Your task to perform on an android device: Open notification settings Image 0: 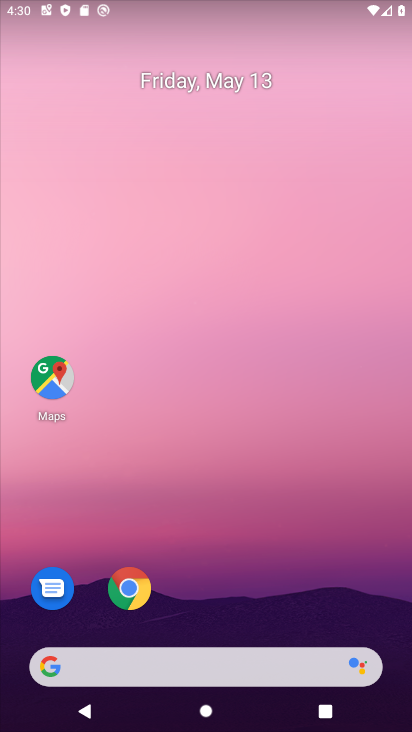
Step 0: drag from (258, 477) to (325, 180)
Your task to perform on an android device: Open notification settings Image 1: 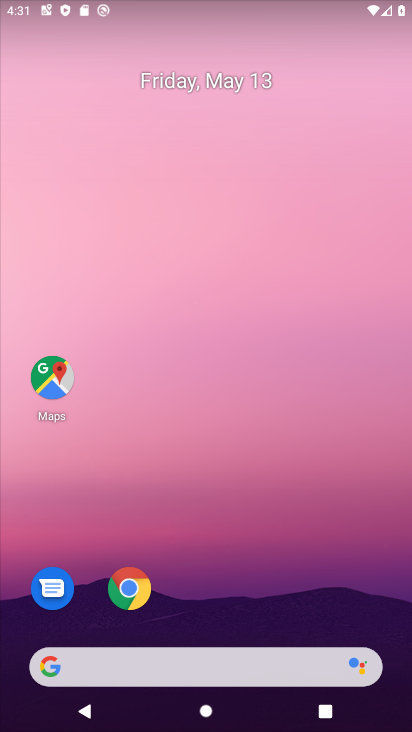
Step 1: click (261, 159)
Your task to perform on an android device: Open notification settings Image 2: 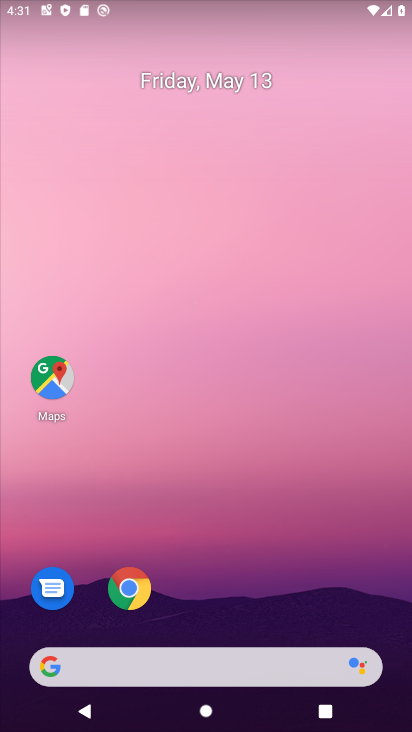
Step 2: drag from (246, 633) to (378, 102)
Your task to perform on an android device: Open notification settings Image 3: 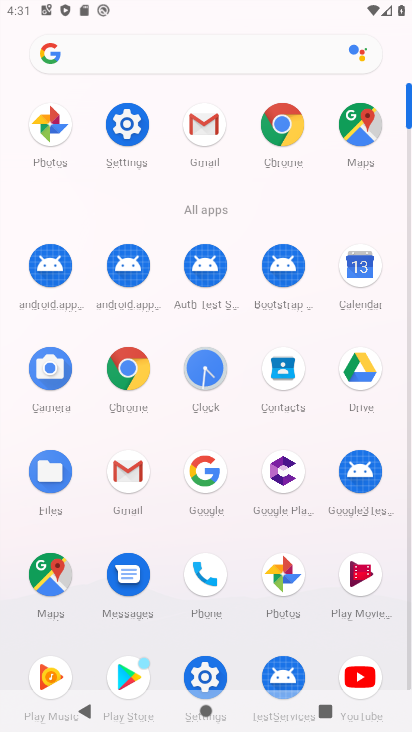
Step 3: click (130, 141)
Your task to perform on an android device: Open notification settings Image 4: 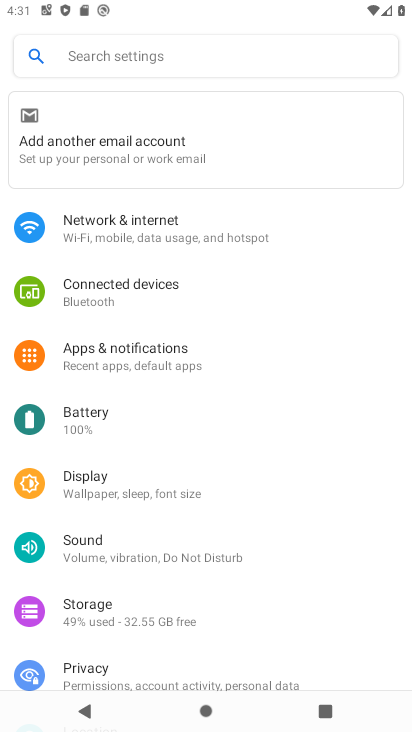
Step 4: click (183, 364)
Your task to perform on an android device: Open notification settings Image 5: 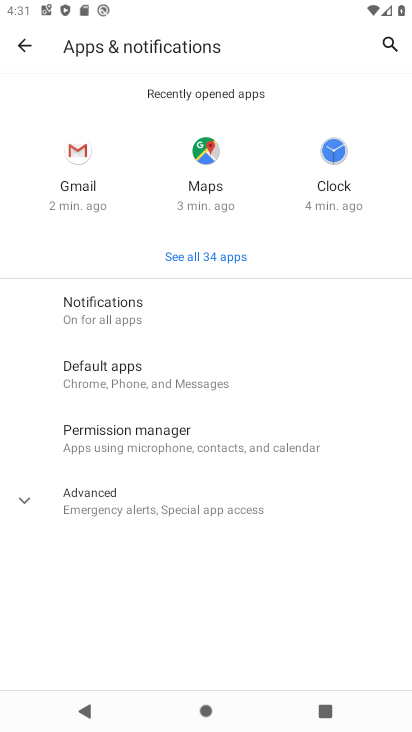
Step 5: click (204, 330)
Your task to perform on an android device: Open notification settings Image 6: 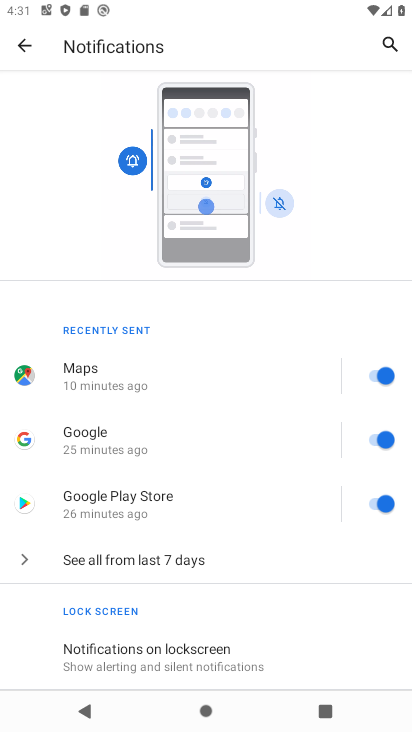
Step 6: task complete